Your task to perform on an android device: turn on priority inbox in the gmail app Image 0: 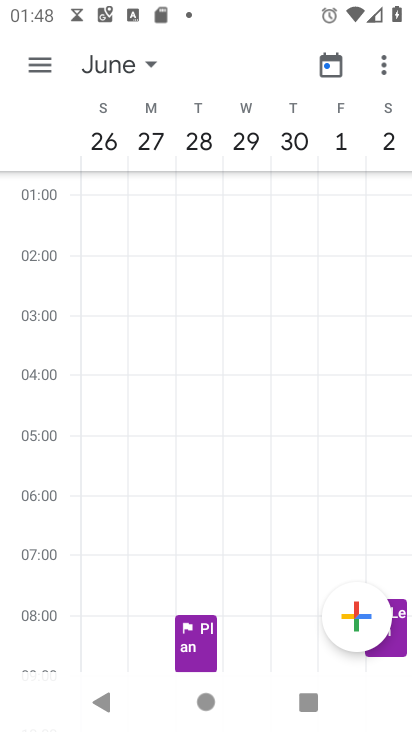
Step 0: press home button
Your task to perform on an android device: turn on priority inbox in the gmail app Image 1: 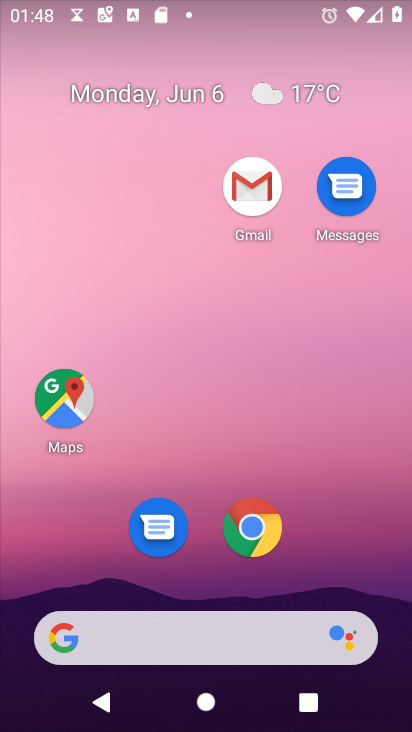
Step 1: drag from (342, 554) to (349, 59)
Your task to perform on an android device: turn on priority inbox in the gmail app Image 2: 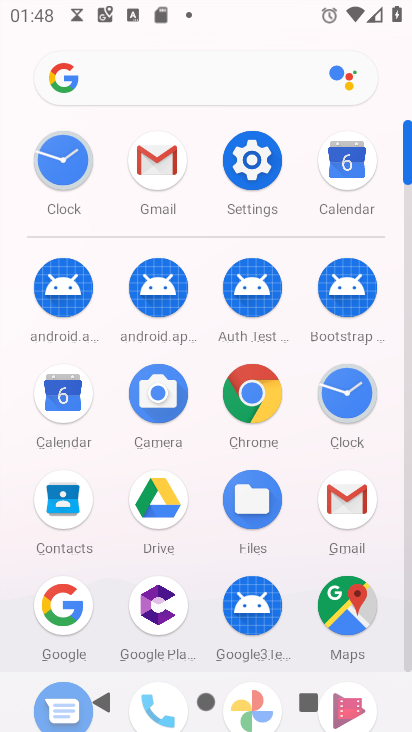
Step 2: click (348, 491)
Your task to perform on an android device: turn on priority inbox in the gmail app Image 3: 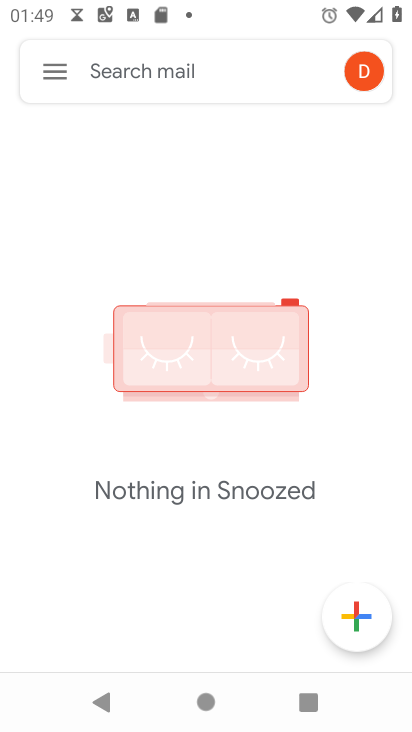
Step 3: click (56, 72)
Your task to perform on an android device: turn on priority inbox in the gmail app Image 4: 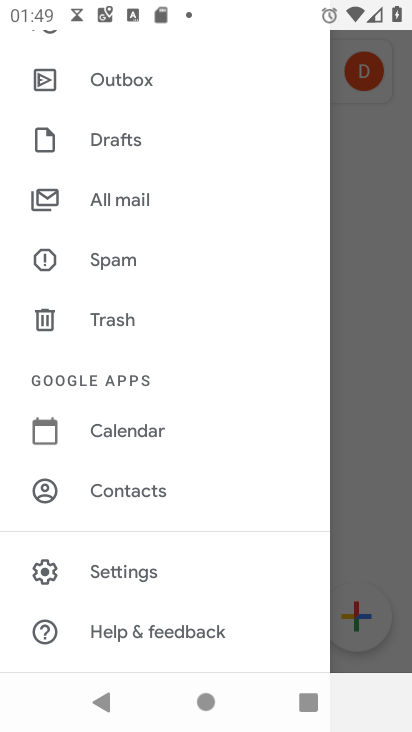
Step 4: click (134, 579)
Your task to perform on an android device: turn on priority inbox in the gmail app Image 5: 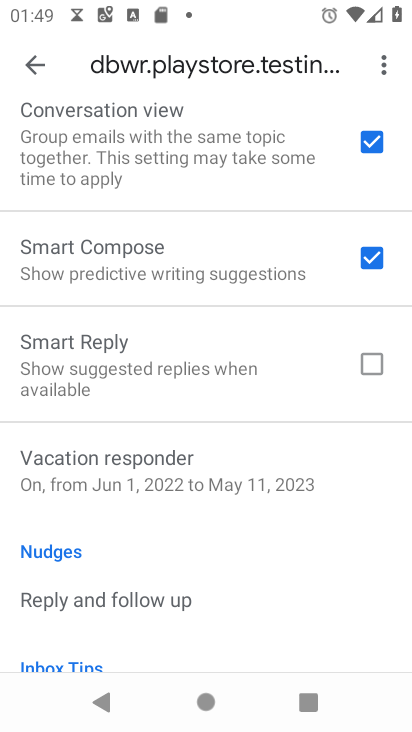
Step 5: task complete